Your task to perform on an android device: Open the Play Movies app and select the watchlist tab. Image 0: 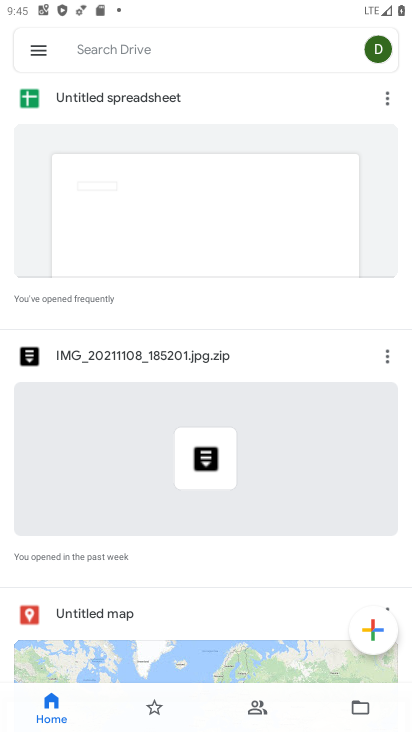
Step 0: press home button
Your task to perform on an android device: Open the Play Movies app and select the watchlist tab. Image 1: 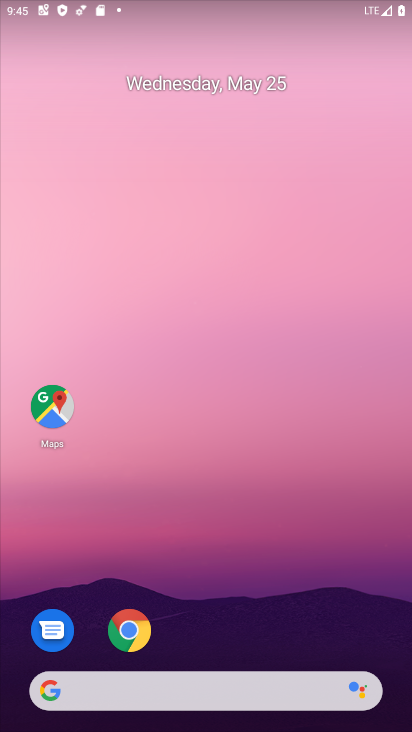
Step 1: drag from (200, 581) to (270, 142)
Your task to perform on an android device: Open the Play Movies app and select the watchlist tab. Image 2: 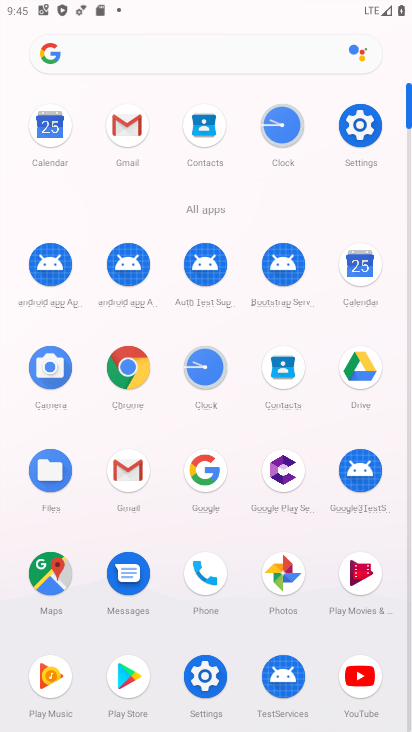
Step 2: click (368, 572)
Your task to perform on an android device: Open the Play Movies app and select the watchlist tab. Image 3: 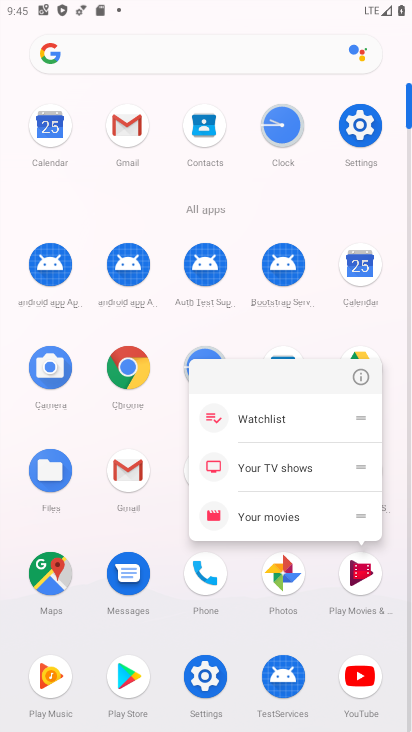
Step 3: click (362, 579)
Your task to perform on an android device: Open the Play Movies app and select the watchlist tab. Image 4: 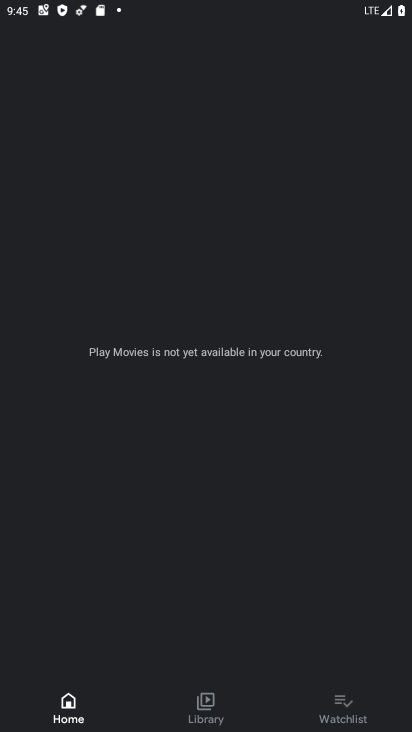
Step 4: click (346, 713)
Your task to perform on an android device: Open the Play Movies app and select the watchlist tab. Image 5: 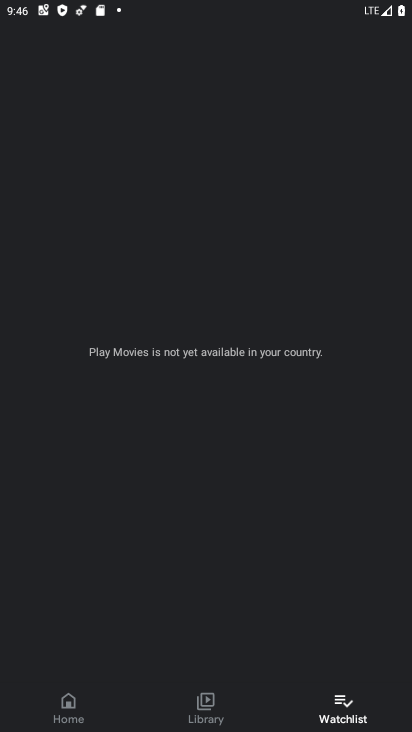
Step 5: task complete